Your task to perform on an android device: What is the news today? Image 0: 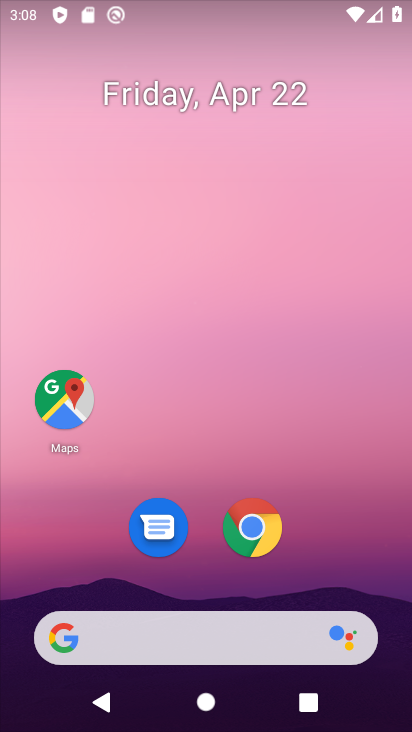
Step 0: click (265, 540)
Your task to perform on an android device: What is the news today? Image 1: 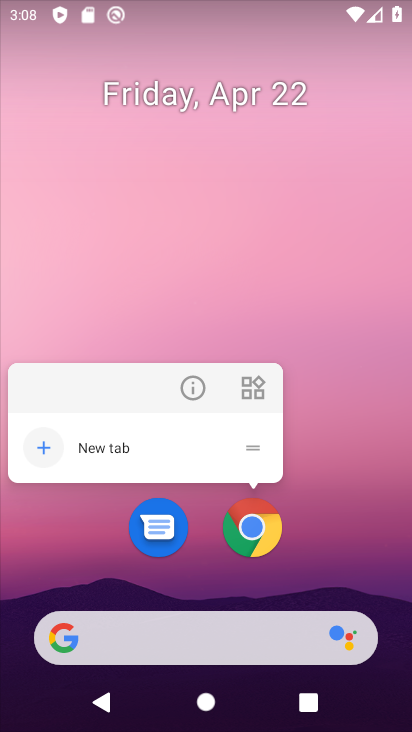
Step 1: click (265, 540)
Your task to perform on an android device: What is the news today? Image 2: 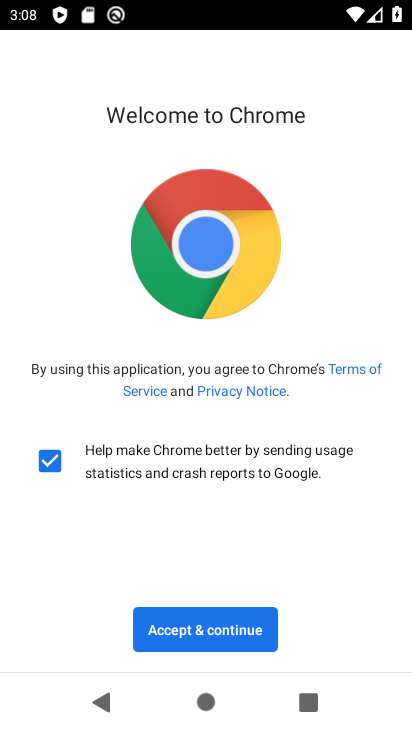
Step 2: click (225, 639)
Your task to perform on an android device: What is the news today? Image 3: 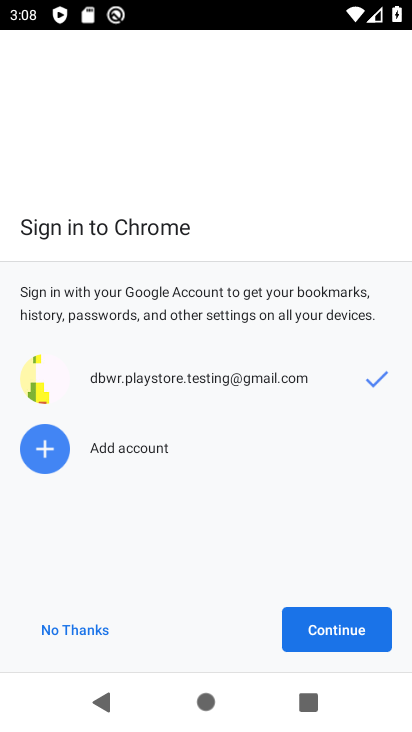
Step 3: click (310, 642)
Your task to perform on an android device: What is the news today? Image 4: 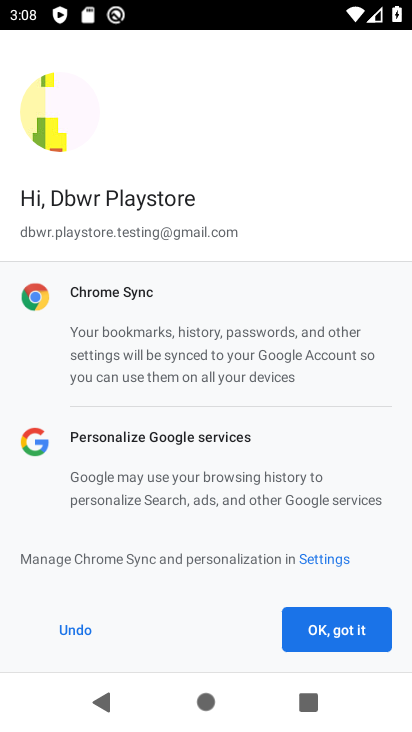
Step 4: click (310, 642)
Your task to perform on an android device: What is the news today? Image 5: 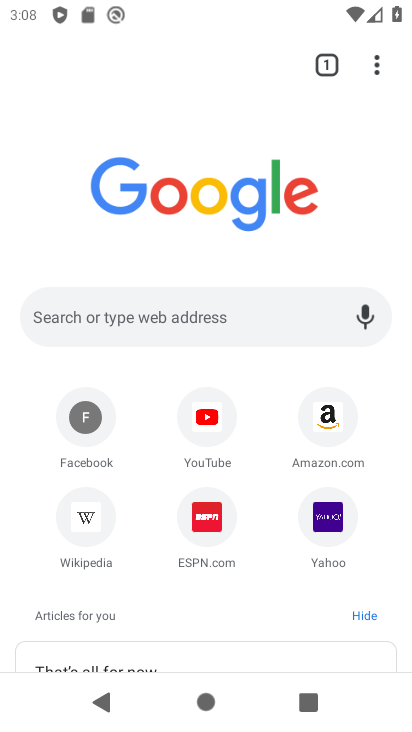
Step 5: click (295, 312)
Your task to perform on an android device: What is the news today? Image 6: 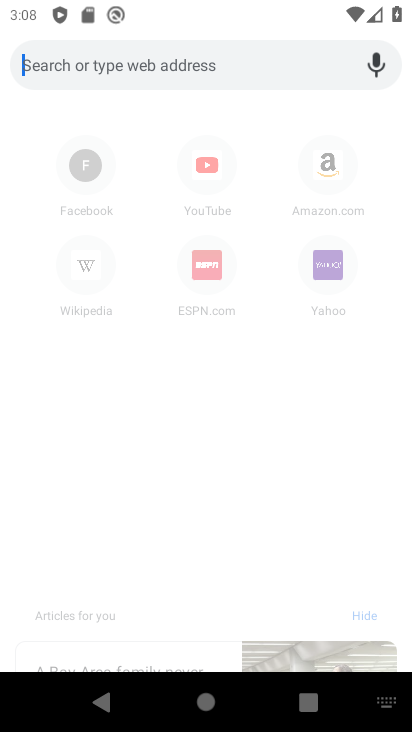
Step 6: type "What is the news today?"
Your task to perform on an android device: What is the news today? Image 7: 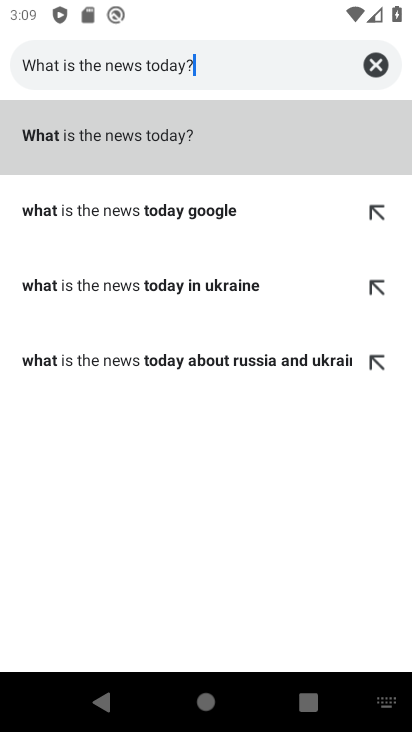
Step 7: click (133, 142)
Your task to perform on an android device: What is the news today? Image 8: 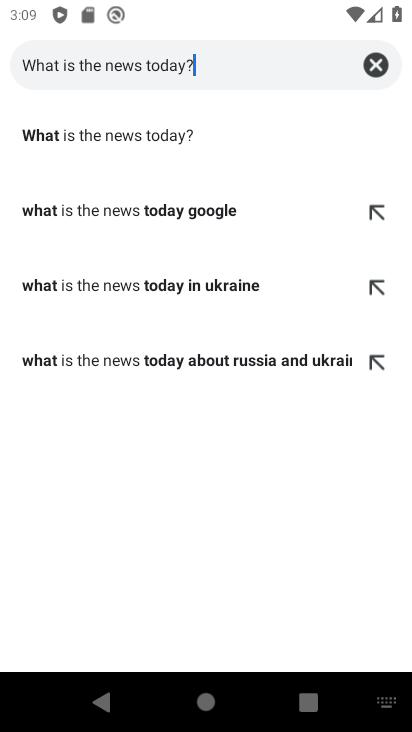
Step 8: click (126, 138)
Your task to perform on an android device: What is the news today? Image 9: 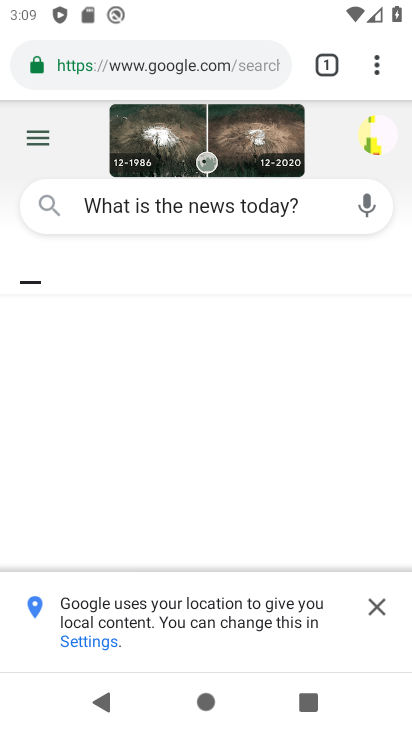
Step 9: click (378, 614)
Your task to perform on an android device: What is the news today? Image 10: 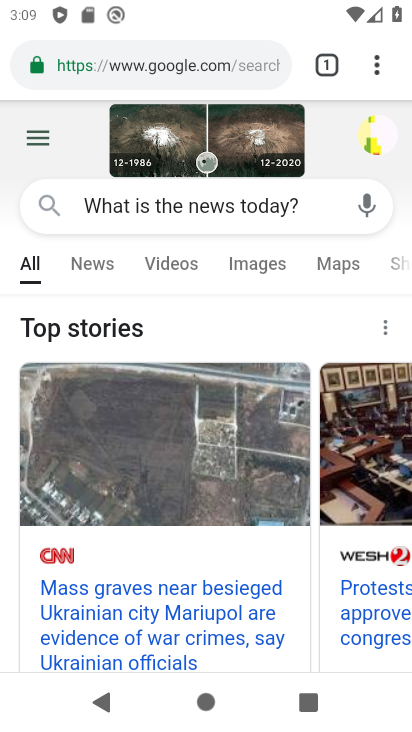
Step 10: task complete